Your task to perform on an android device: Clear the shopping cart on ebay. Search for panasonic triple a on ebay, select the first entry, add it to the cart, then select checkout. Image 0: 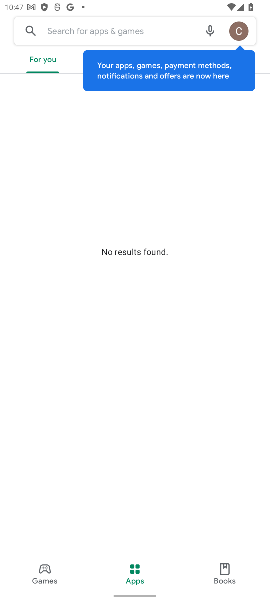
Step 0: press home button
Your task to perform on an android device: Clear the shopping cart on ebay. Search for panasonic triple a on ebay, select the first entry, add it to the cart, then select checkout. Image 1: 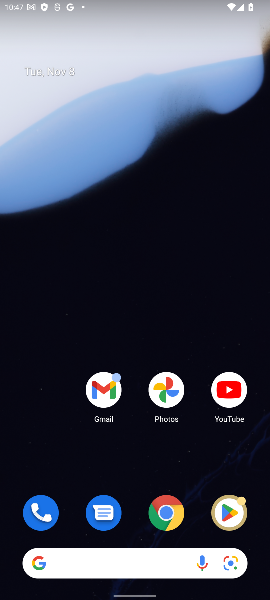
Step 1: click (171, 512)
Your task to perform on an android device: Clear the shopping cart on ebay. Search for panasonic triple a on ebay, select the first entry, add it to the cart, then select checkout. Image 2: 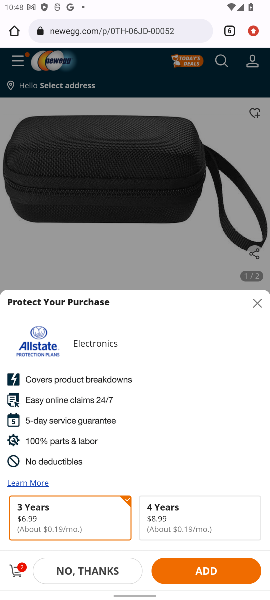
Step 2: click (232, 30)
Your task to perform on an android device: Clear the shopping cart on ebay. Search for panasonic triple a on ebay, select the first entry, add it to the cart, then select checkout. Image 3: 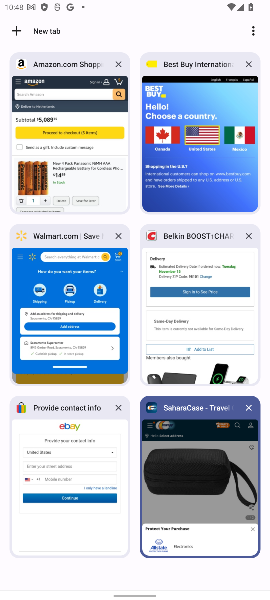
Step 3: click (74, 453)
Your task to perform on an android device: Clear the shopping cart on ebay. Search for panasonic triple a on ebay, select the first entry, add it to the cart, then select checkout. Image 4: 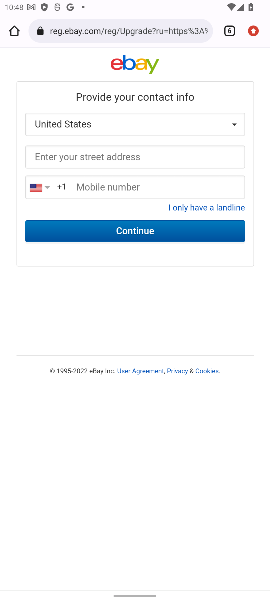
Step 4: press back button
Your task to perform on an android device: Clear the shopping cart on ebay. Search for panasonic triple a on ebay, select the first entry, add it to the cart, then select checkout. Image 5: 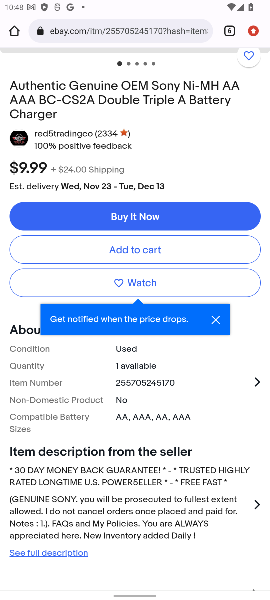
Step 5: drag from (128, 127) to (98, 496)
Your task to perform on an android device: Clear the shopping cart on ebay. Search for panasonic triple a on ebay, select the first entry, add it to the cart, then select checkout. Image 6: 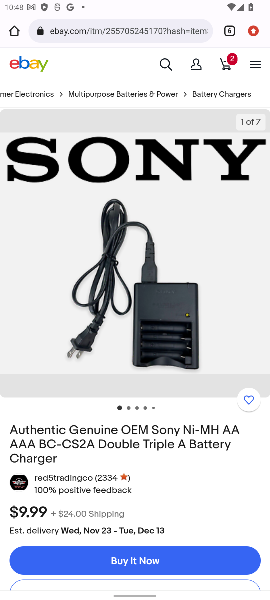
Step 6: click (165, 65)
Your task to perform on an android device: Clear the shopping cart on ebay. Search for panasonic triple a on ebay, select the first entry, add it to the cart, then select checkout. Image 7: 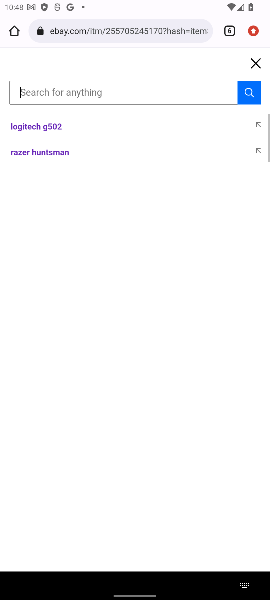
Step 7: type "panasonic triple a"
Your task to perform on an android device: Clear the shopping cart on ebay. Search for panasonic triple a on ebay, select the first entry, add it to the cart, then select checkout. Image 8: 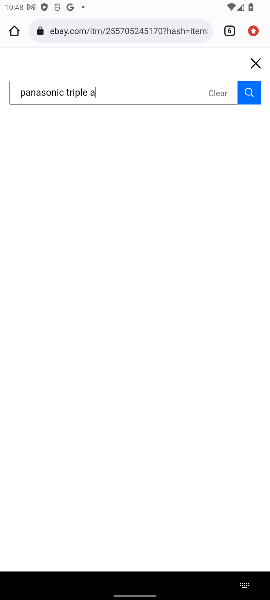
Step 8: click (254, 91)
Your task to perform on an android device: Clear the shopping cart on ebay. Search for panasonic triple a on ebay, select the first entry, add it to the cart, then select checkout. Image 9: 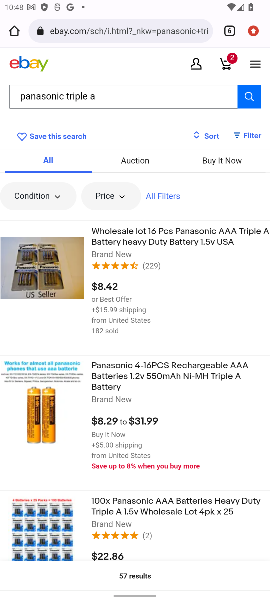
Step 9: click (161, 366)
Your task to perform on an android device: Clear the shopping cart on ebay. Search for panasonic triple a on ebay, select the first entry, add it to the cart, then select checkout. Image 10: 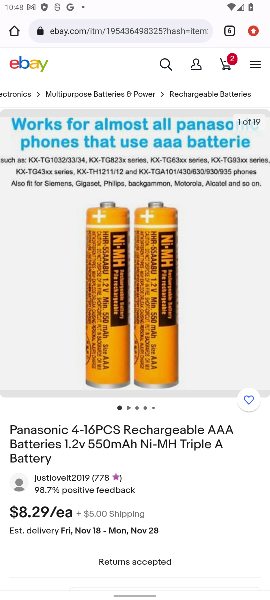
Step 10: drag from (184, 505) to (183, 257)
Your task to perform on an android device: Clear the shopping cart on ebay. Search for panasonic triple a on ebay, select the first entry, add it to the cart, then select checkout. Image 11: 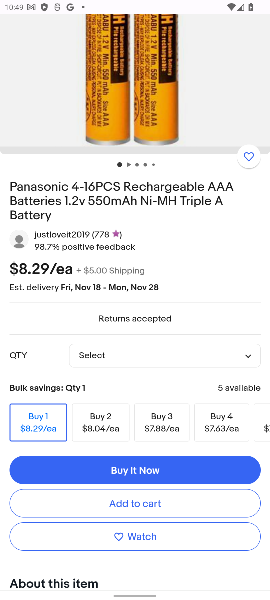
Step 11: click (151, 507)
Your task to perform on an android device: Clear the shopping cart on ebay. Search for panasonic triple a on ebay, select the first entry, add it to the cart, then select checkout. Image 12: 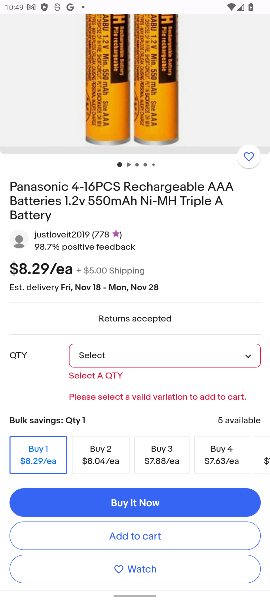
Step 12: click (247, 355)
Your task to perform on an android device: Clear the shopping cart on ebay. Search for panasonic triple a on ebay, select the first entry, add it to the cart, then select checkout. Image 13: 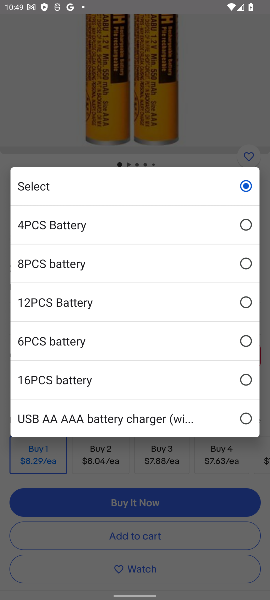
Step 13: click (249, 224)
Your task to perform on an android device: Clear the shopping cart on ebay. Search for panasonic triple a on ebay, select the first entry, add it to the cart, then select checkout. Image 14: 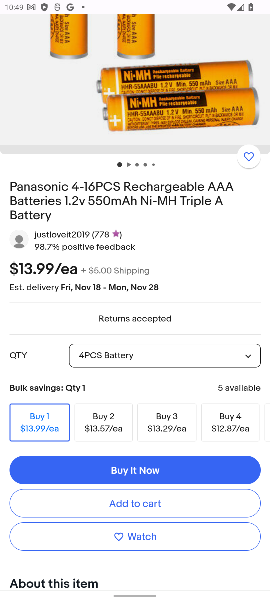
Step 14: click (120, 507)
Your task to perform on an android device: Clear the shopping cart on ebay. Search for panasonic triple a on ebay, select the first entry, add it to the cart, then select checkout. Image 15: 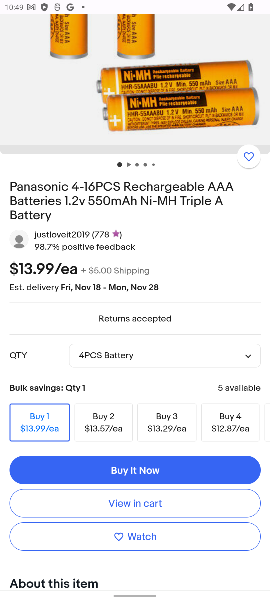
Step 15: click (120, 507)
Your task to perform on an android device: Clear the shopping cart on ebay. Search for panasonic triple a on ebay, select the first entry, add it to the cart, then select checkout. Image 16: 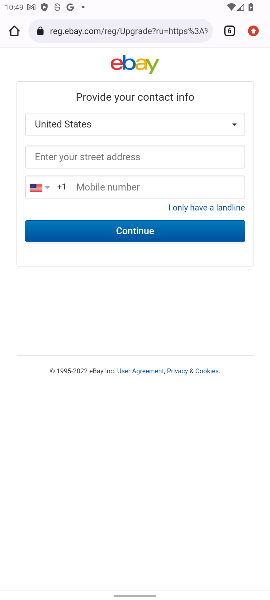
Step 16: press back button
Your task to perform on an android device: Clear the shopping cart on ebay. Search for panasonic triple a on ebay, select the first entry, add it to the cart, then select checkout. Image 17: 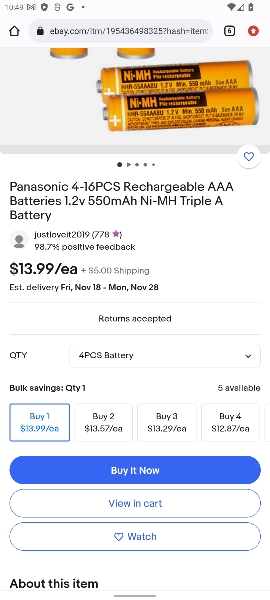
Step 17: drag from (230, 173) to (195, 508)
Your task to perform on an android device: Clear the shopping cart on ebay. Search for panasonic triple a on ebay, select the first entry, add it to the cart, then select checkout. Image 18: 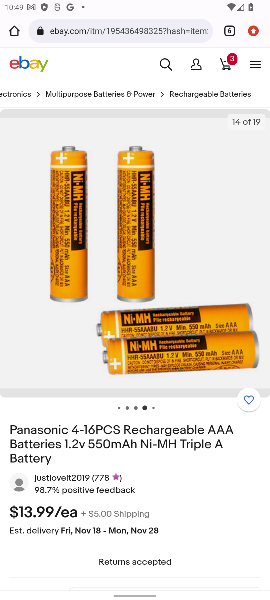
Step 18: click (229, 59)
Your task to perform on an android device: Clear the shopping cart on ebay. Search for panasonic triple a on ebay, select the first entry, add it to the cart, then select checkout. Image 19: 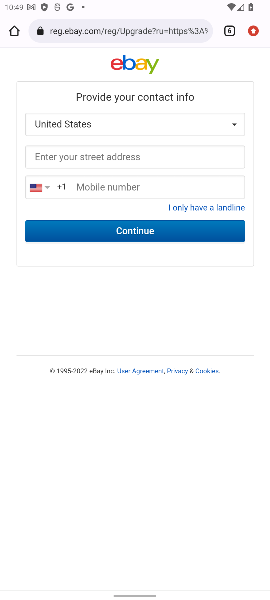
Step 19: press back button
Your task to perform on an android device: Clear the shopping cart on ebay. Search for panasonic triple a on ebay, select the first entry, add it to the cart, then select checkout. Image 20: 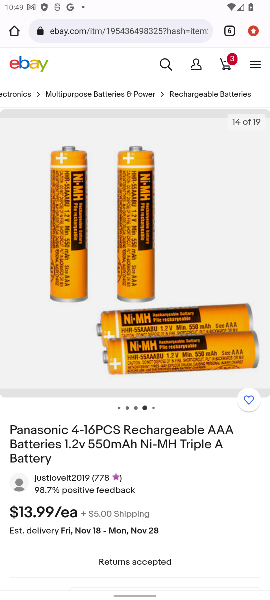
Step 20: click (228, 64)
Your task to perform on an android device: Clear the shopping cart on ebay. Search for panasonic triple a on ebay, select the first entry, add it to the cart, then select checkout. Image 21: 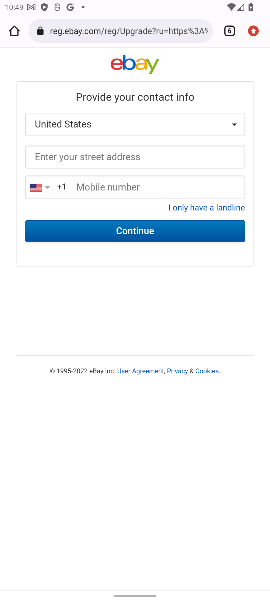
Step 21: task complete